Your task to perform on an android device: install app "Messenger Lite" Image 0: 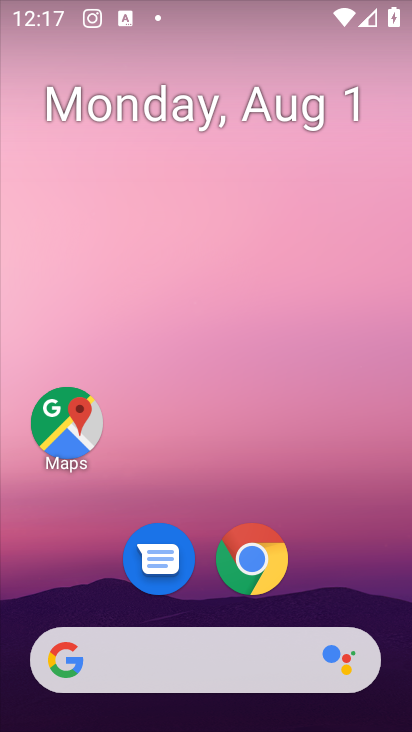
Step 0: drag from (84, 588) to (251, 0)
Your task to perform on an android device: install app "Messenger Lite" Image 1: 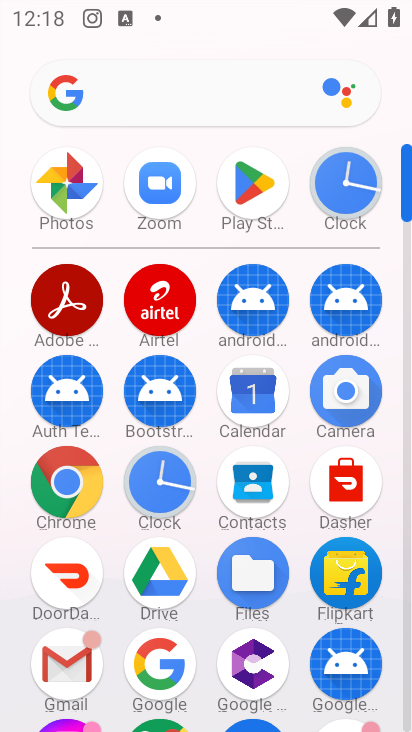
Step 1: click (263, 197)
Your task to perform on an android device: install app "Messenger Lite" Image 2: 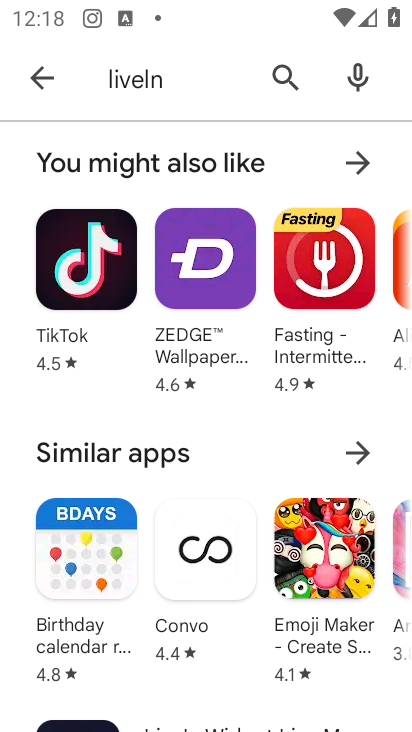
Step 2: click (288, 80)
Your task to perform on an android device: install app "Messenger Lite" Image 3: 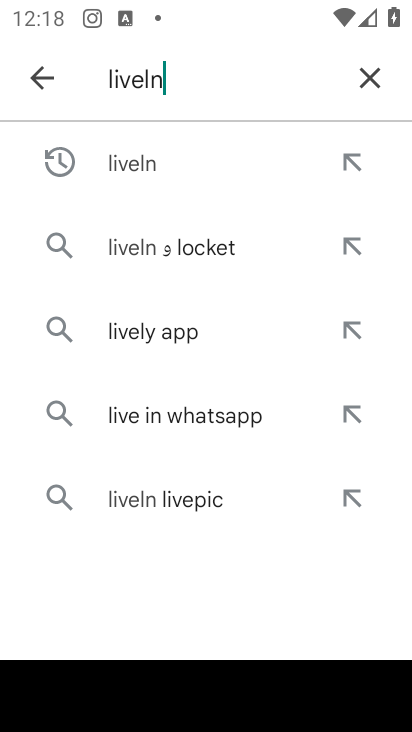
Step 3: click (365, 78)
Your task to perform on an android device: install app "Messenger Lite" Image 4: 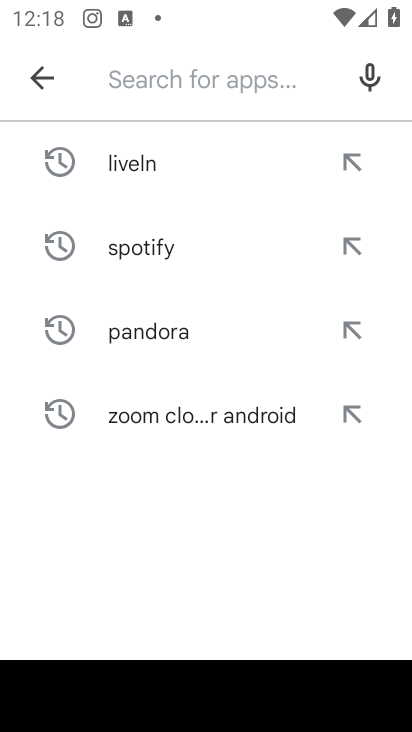
Step 4: click (172, 85)
Your task to perform on an android device: install app "Messenger Lite" Image 5: 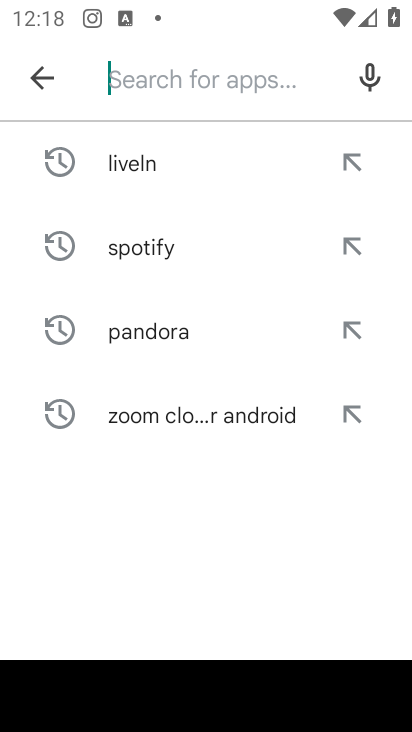
Step 5: type "messenger lite"
Your task to perform on an android device: install app "Messenger Lite" Image 6: 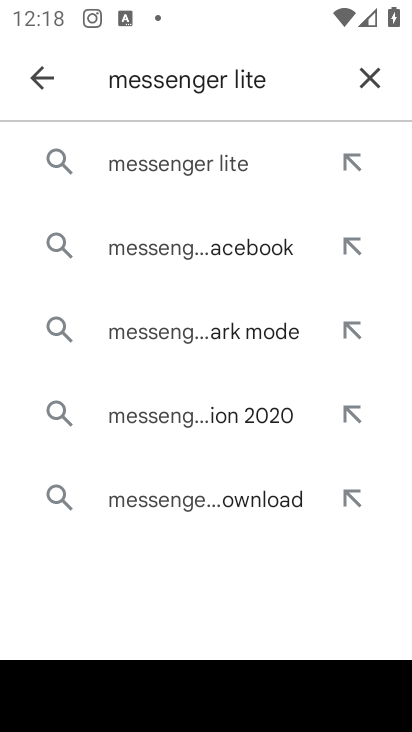
Step 6: click (222, 153)
Your task to perform on an android device: install app "Messenger Lite" Image 7: 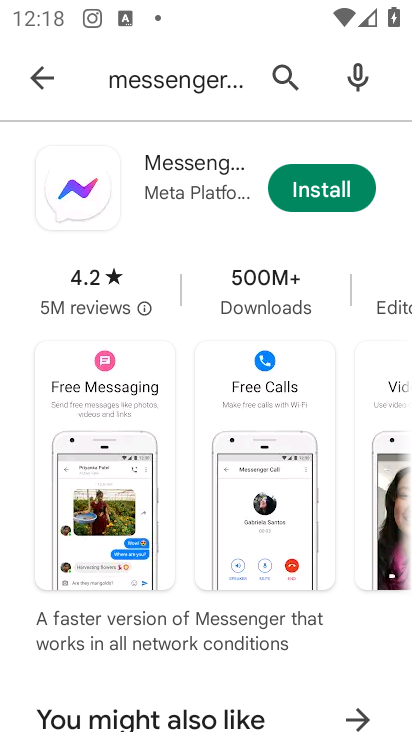
Step 7: click (333, 180)
Your task to perform on an android device: install app "Messenger Lite" Image 8: 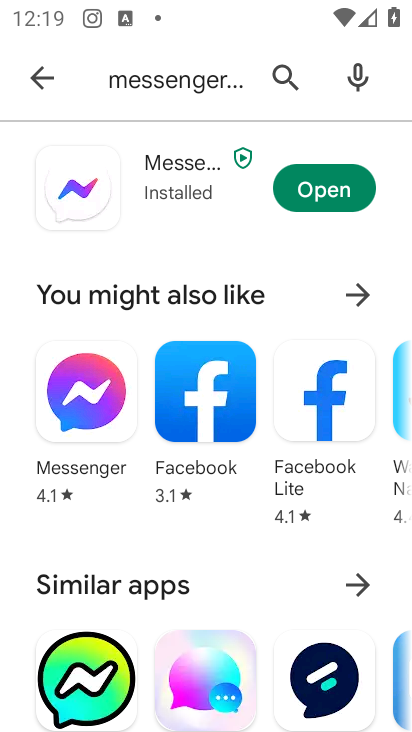
Step 8: click (338, 190)
Your task to perform on an android device: install app "Messenger Lite" Image 9: 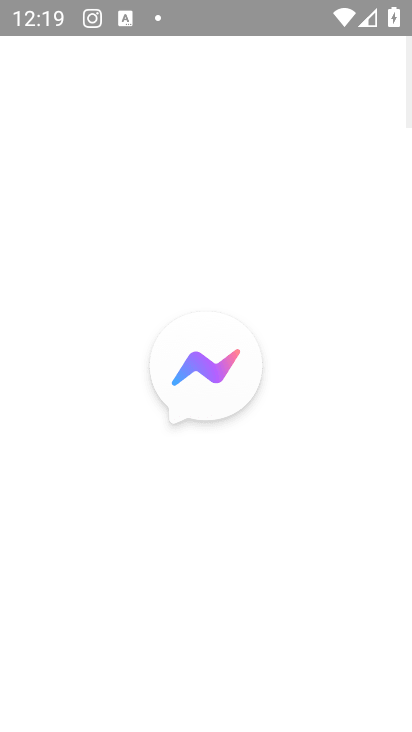
Step 9: task complete